Your task to perform on an android device: open the mobile data screen to see how much data has been used Image 0: 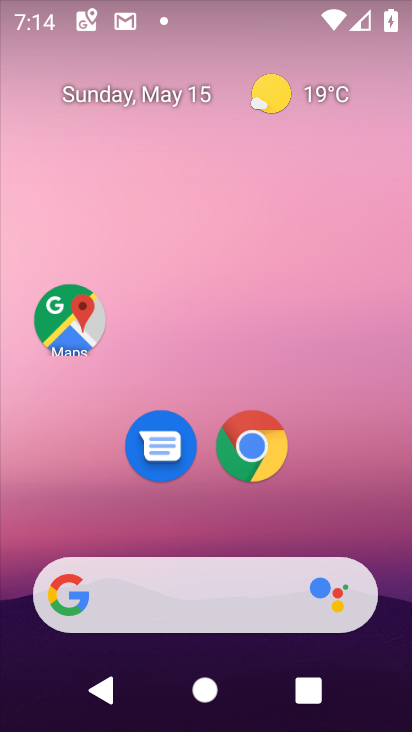
Step 0: drag from (282, 630) to (175, 226)
Your task to perform on an android device: open the mobile data screen to see how much data has been used Image 1: 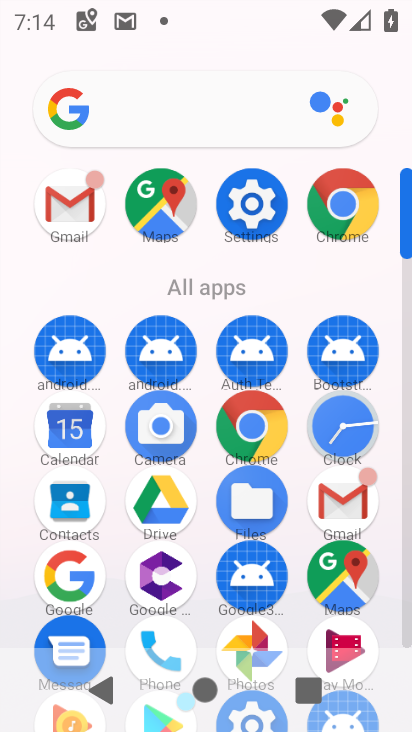
Step 1: click (267, 216)
Your task to perform on an android device: open the mobile data screen to see how much data has been used Image 2: 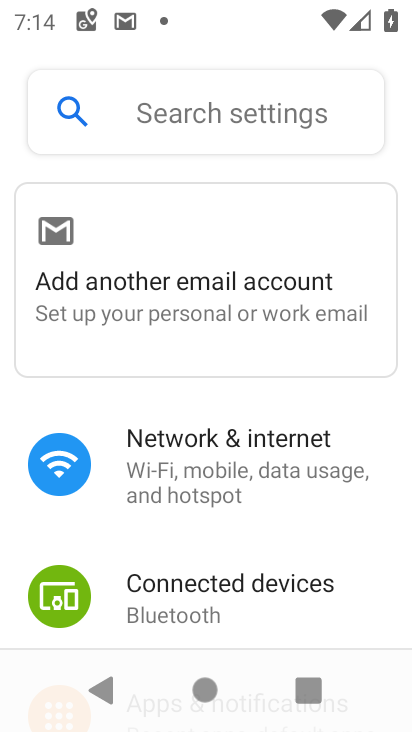
Step 2: click (184, 131)
Your task to perform on an android device: open the mobile data screen to see how much data has been used Image 3: 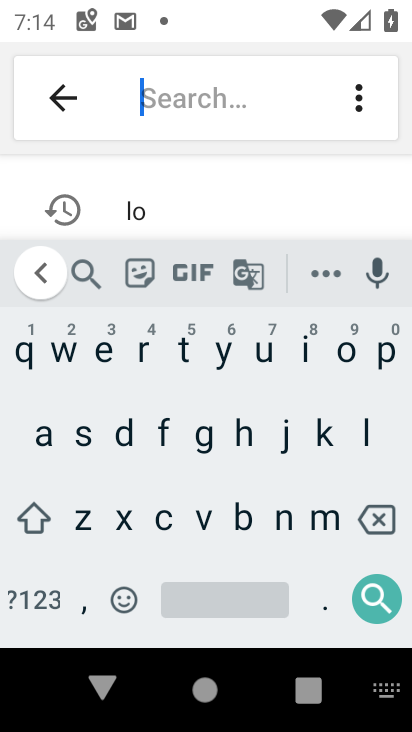
Step 3: click (126, 435)
Your task to perform on an android device: open the mobile data screen to see how much data has been used Image 4: 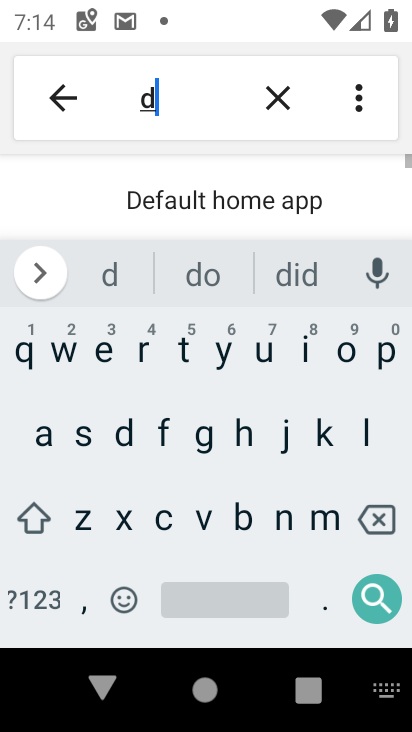
Step 4: click (38, 437)
Your task to perform on an android device: open the mobile data screen to see how much data has been used Image 5: 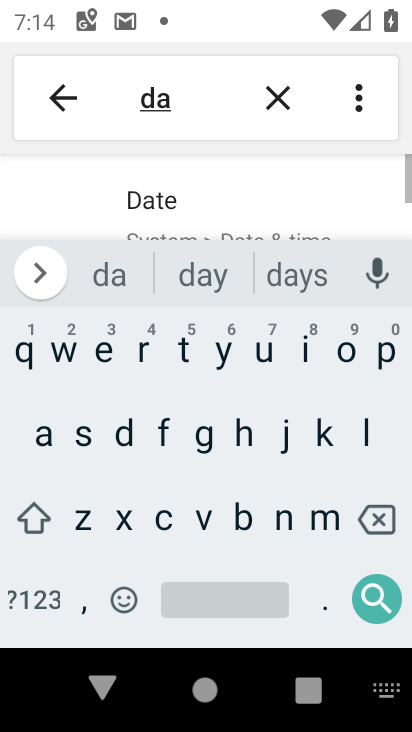
Step 5: click (187, 356)
Your task to perform on an android device: open the mobile data screen to see how much data has been used Image 6: 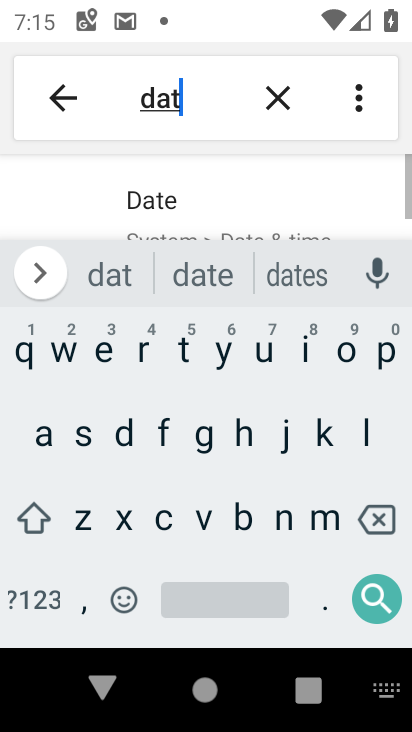
Step 6: click (53, 441)
Your task to perform on an android device: open the mobile data screen to see how much data has been used Image 7: 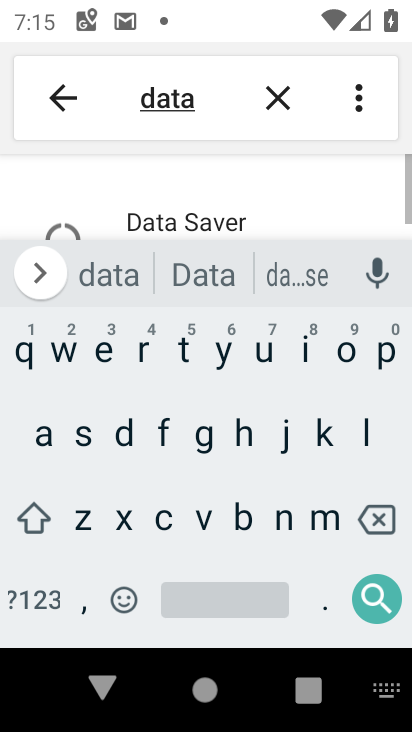
Step 7: click (213, 597)
Your task to perform on an android device: open the mobile data screen to see how much data has been used Image 8: 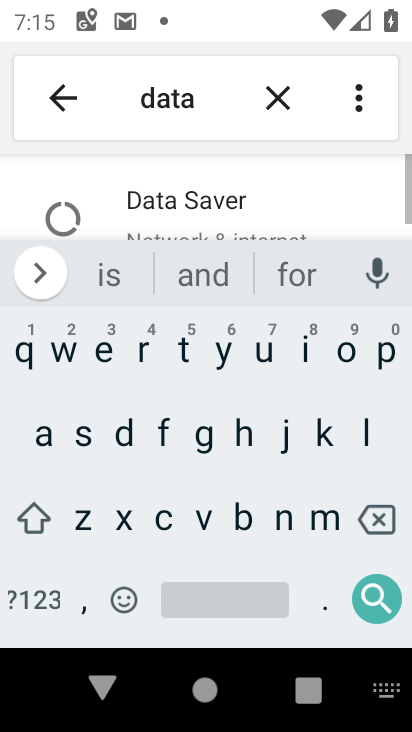
Step 8: click (256, 356)
Your task to perform on an android device: open the mobile data screen to see how much data has been used Image 9: 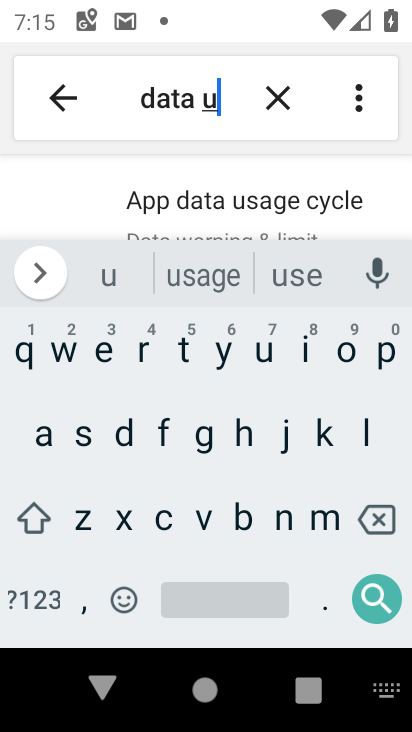
Step 9: press back button
Your task to perform on an android device: open the mobile data screen to see how much data has been used Image 10: 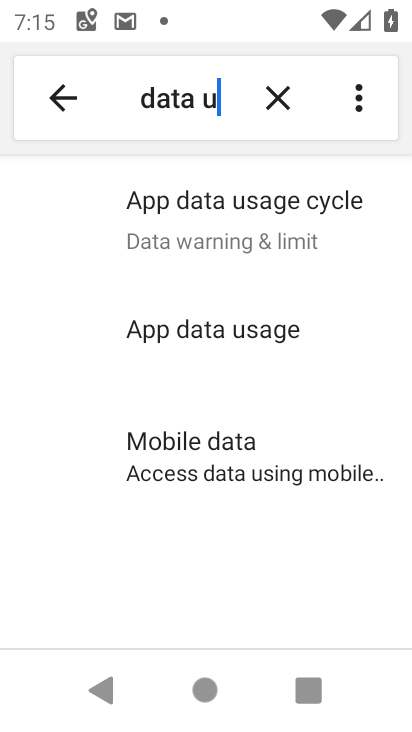
Step 10: click (195, 325)
Your task to perform on an android device: open the mobile data screen to see how much data has been used Image 11: 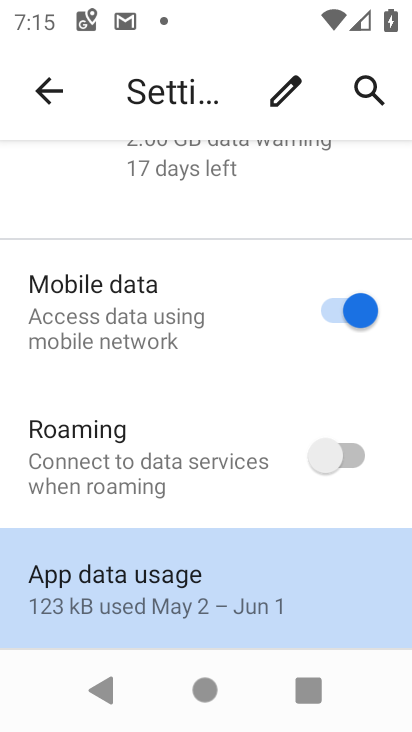
Step 11: click (138, 618)
Your task to perform on an android device: open the mobile data screen to see how much data has been used Image 12: 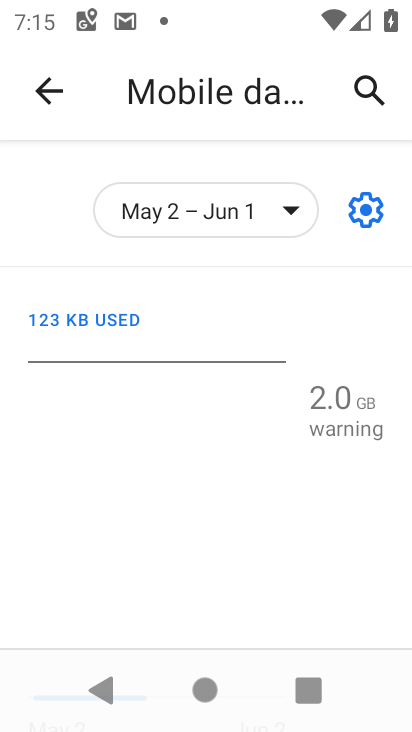
Step 12: task complete